Your task to perform on an android device: toggle show notifications on the lock screen Image 0: 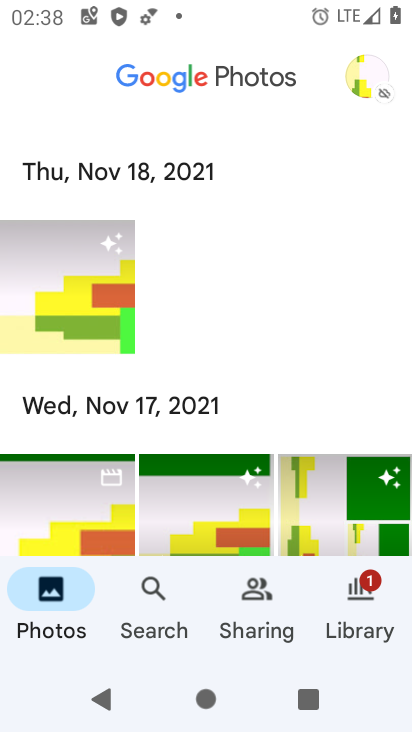
Step 0: press home button
Your task to perform on an android device: toggle show notifications on the lock screen Image 1: 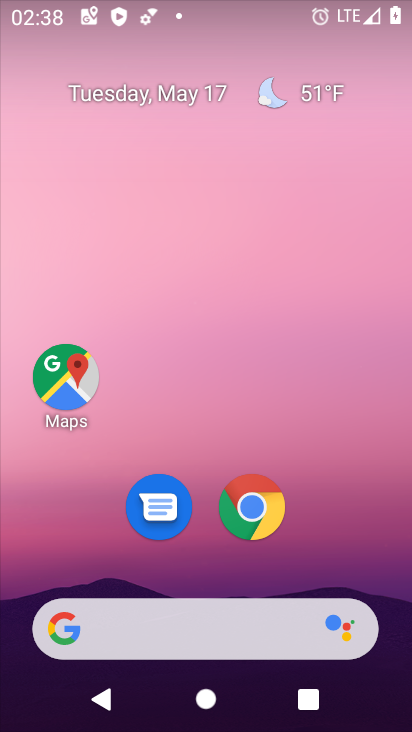
Step 1: drag from (314, 564) to (381, 33)
Your task to perform on an android device: toggle show notifications on the lock screen Image 2: 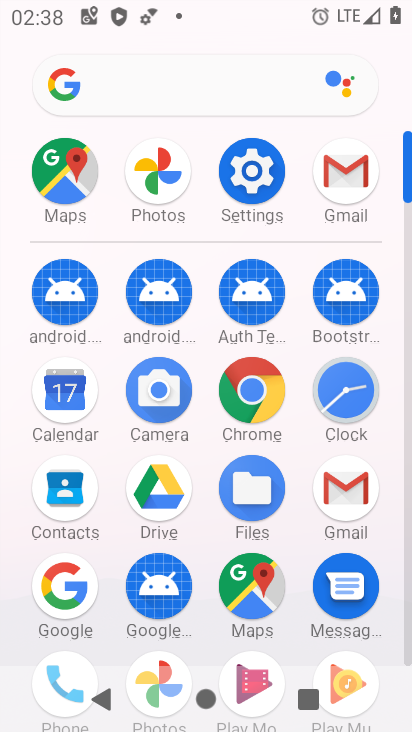
Step 2: click (242, 173)
Your task to perform on an android device: toggle show notifications on the lock screen Image 3: 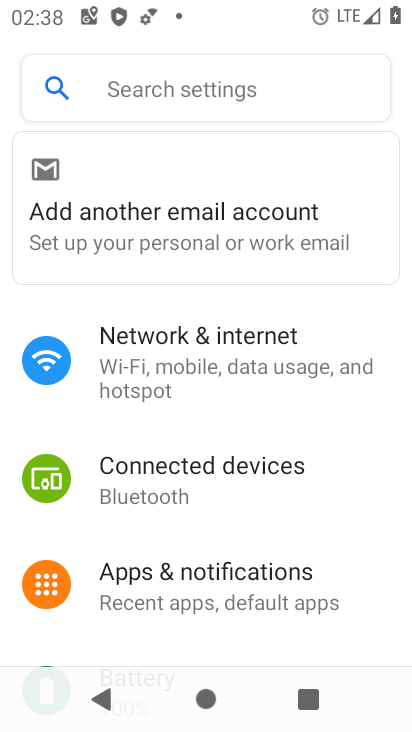
Step 3: click (175, 577)
Your task to perform on an android device: toggle show notifications on the lock screen Image 4: 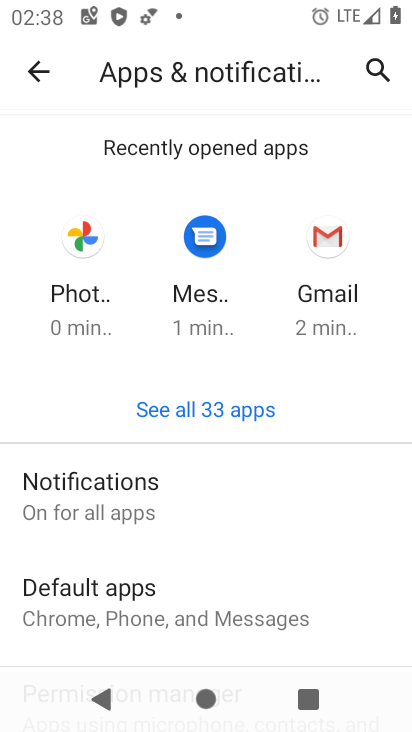
Step 4: click (127, 490)
Your task to perform on an android device: toggle show notifications on the lock screen Image 5: 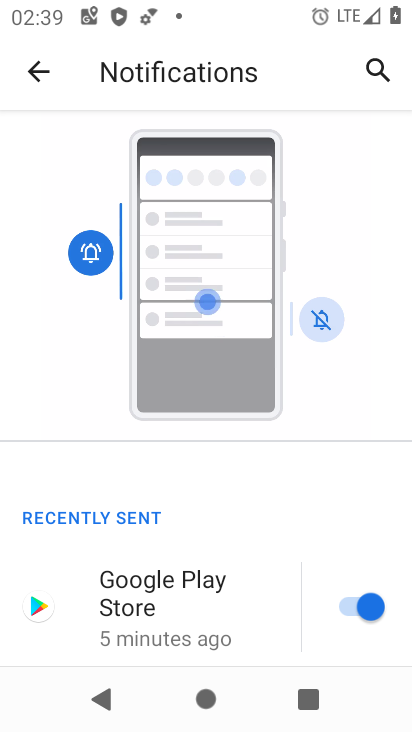
Step 5: drag from (201, 622) to (201, 338)
Your task to perform on an android device: toggle show notifications on the lock screen Image 6: 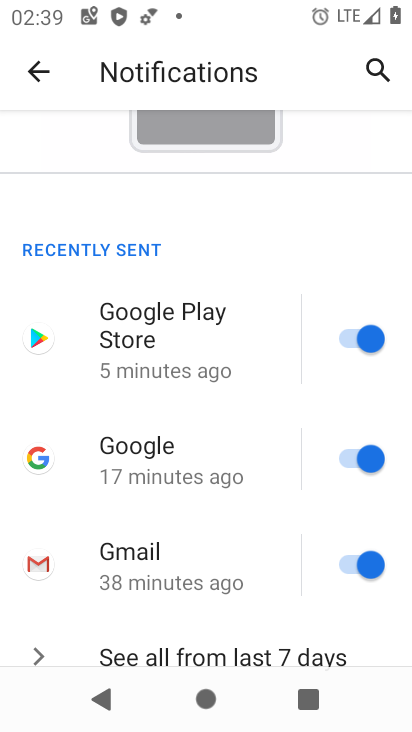
Step 6: drag from (184, 603) to (193, 316)
Your task to perform on an android device: toggle show notifications on the lock screen Image 7: 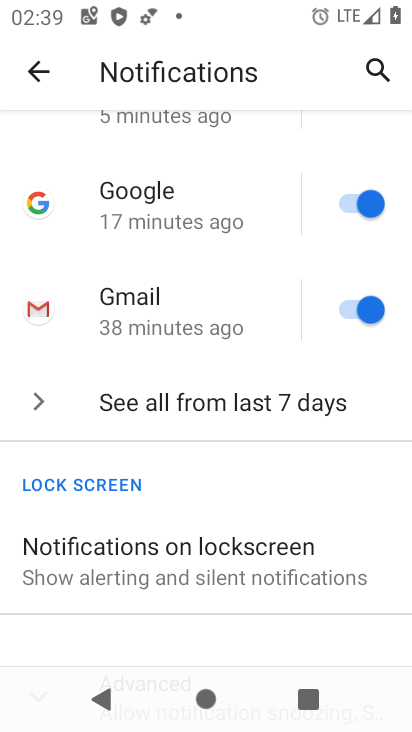
Step 7: click (160, 560)
Your task to perform on an android device: toggle show notifications on the lock screen Image 8: 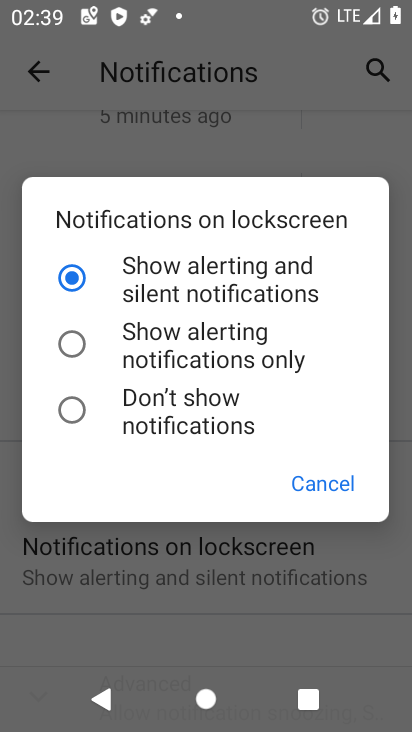
Step 8: click (172, 343)
Your task to perform on an android device: toggle show notifications on the lock screen Image 9: 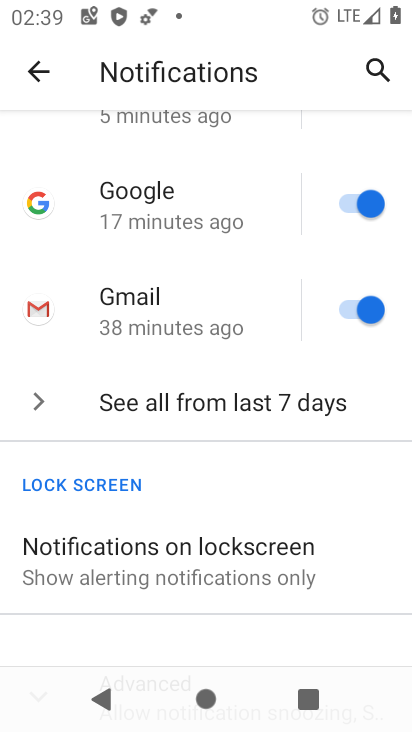
Step 9: task complete